Your task to perform on an android device: Find coffee shops on Maps Image 0: 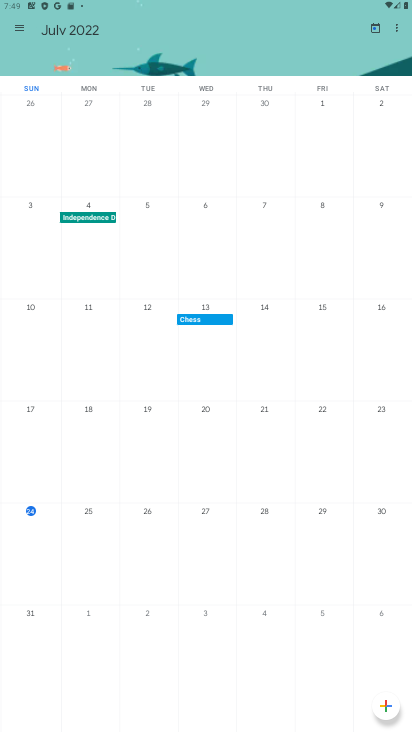
Step 0: press home button
Your task to perform on an android device: Find coffee shops on Maps Image 1: 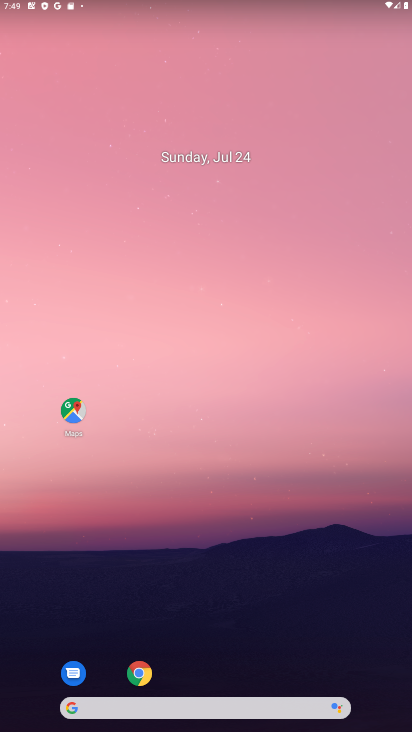
Step 1: click (61, 417)
Your task to perform on an android device: Find coffee shops on Maps Image 2: 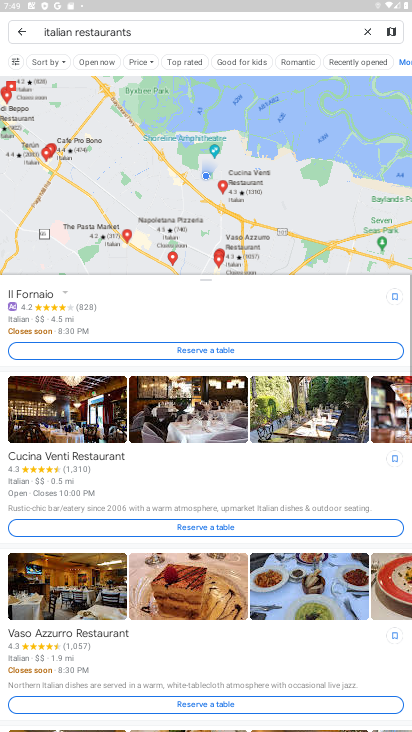
Step 2: click (17, 33)
Your task to perform on an android device: Find coffee shops on Maps Image 3: 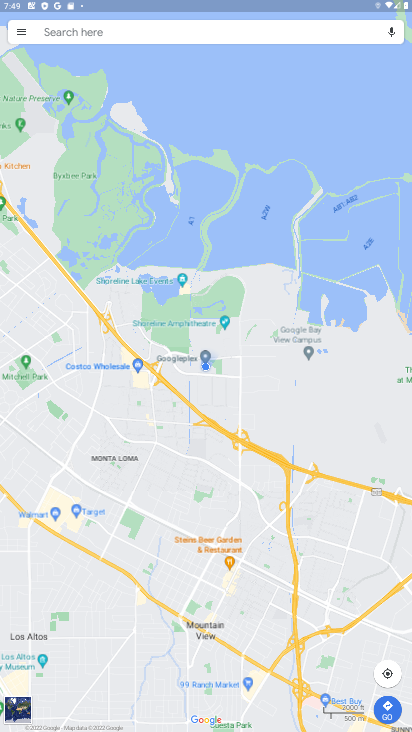
Step 3: click (65, 20)
Your task to perform on an android device: Find coffee shops on Maps Image 4: 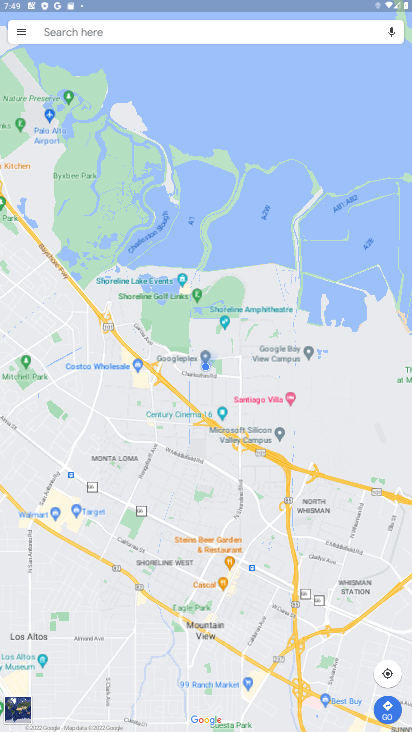
Step 4: click (58, 27)
Your task to perform on an android device: Find coffee shops on Maps Image 5: 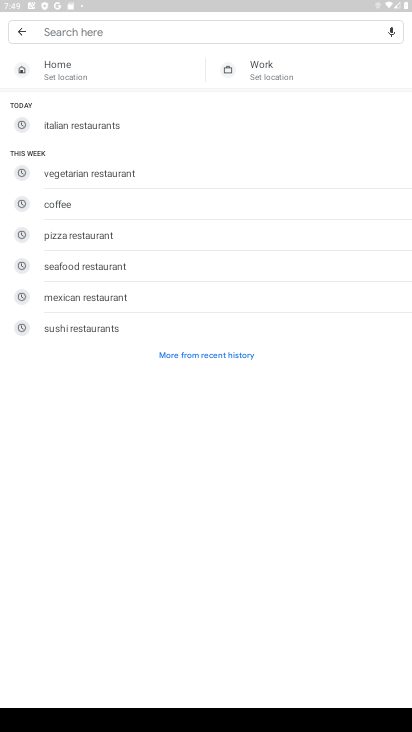
Step 5: type "coffee shops"
Your task to perform on an android device: Find coffee shops on Maps Image 6: 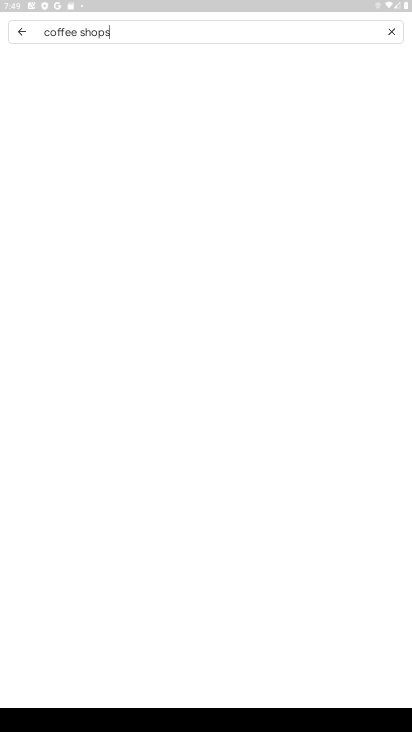
Step 6: type ""
Your task to perform on an android device: Find coffee shops on Maps Image 7: 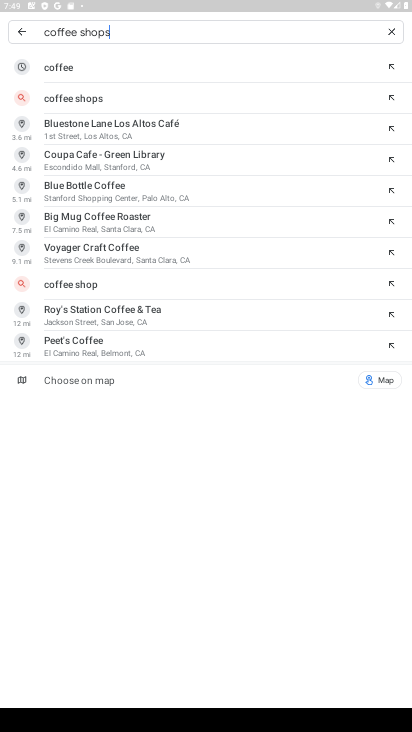
Step 7: click (78, 100)
Your task to perform on an android device: Find coffee shops on Maps Image 8: 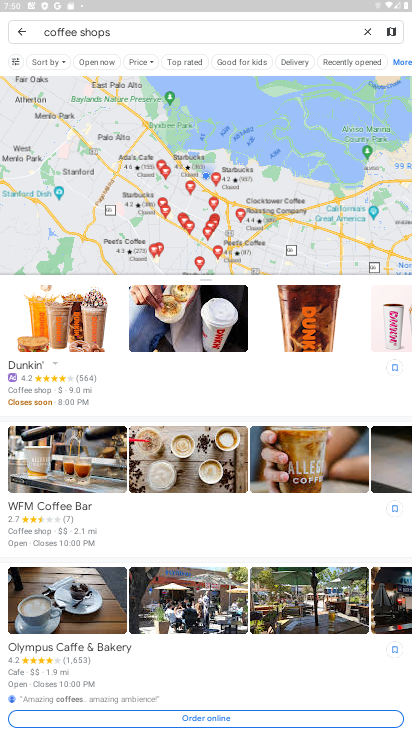
Step 8: task complete